Your task to perform on an android device: What's the weather? Image 0: 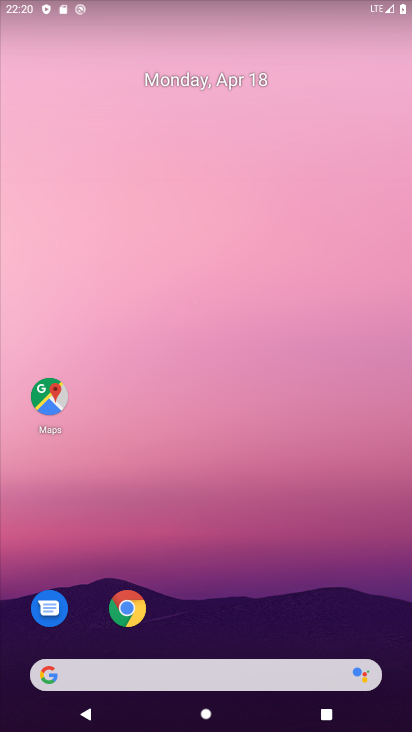
Step 0: drag from (207, 468) to (228, 27)
Your task to perform on an android device: What's the weather? Image 1: 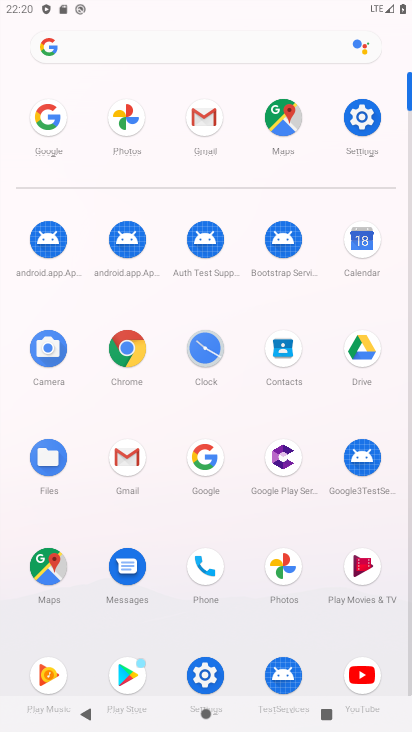
Step 1: click (205, 462)
Your task to perform on an android device: What's the weather? Image 2: 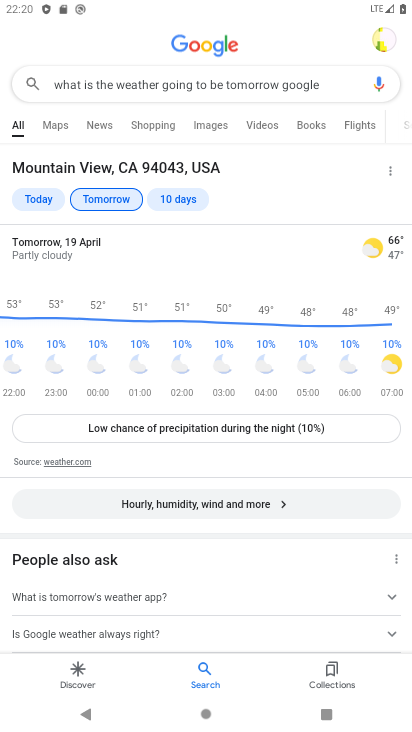
Step 2: click (33, 196)
Your task to perform on an android device: What's the weather? Image 3: 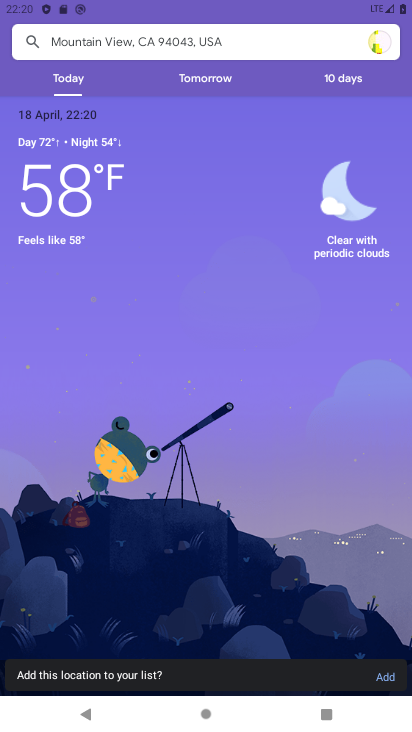
Step 3: task complete